Your task to perform on an android device: Find coffee shops on Maps Image 0: 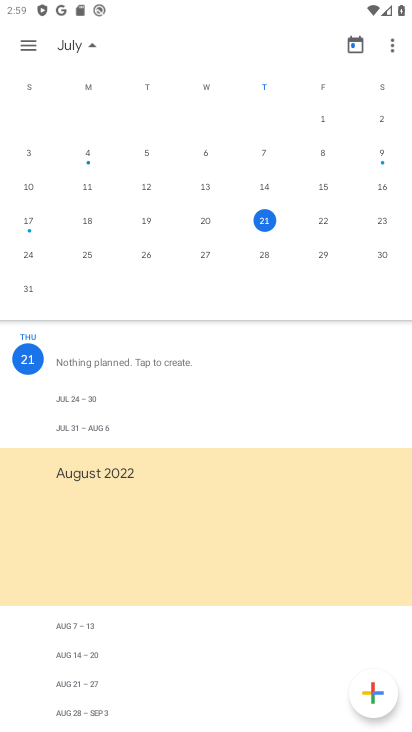
Step 0: press home button
Your task to perform on an android device: Find coffee shops on Maps Image 1: 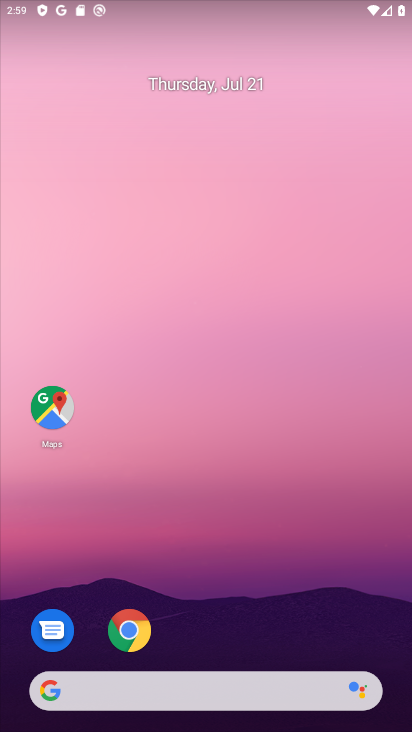
Step 1: drag from (294, 603) to (70, 28)
Your task to perform on an android device: Find coffee shops on Maps Image 2: 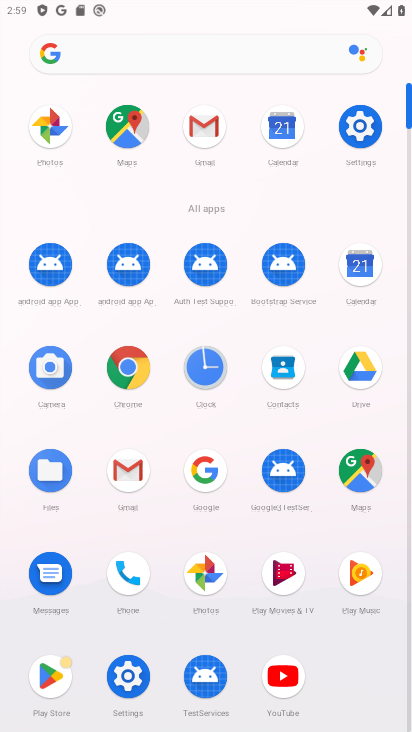
Step 2: click (134, 125)
Your task to perform on an android device: Find coffee shops on Maps Image 3: 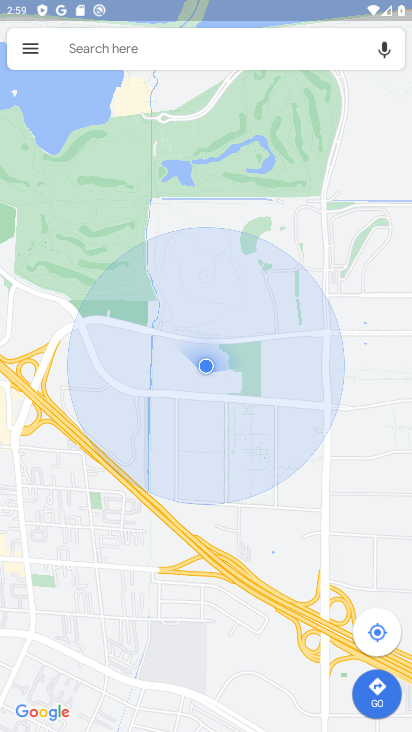
Step 3: click (174, 48)
Your task to perform on an android device: Find coffee shops on Maps Image 4: 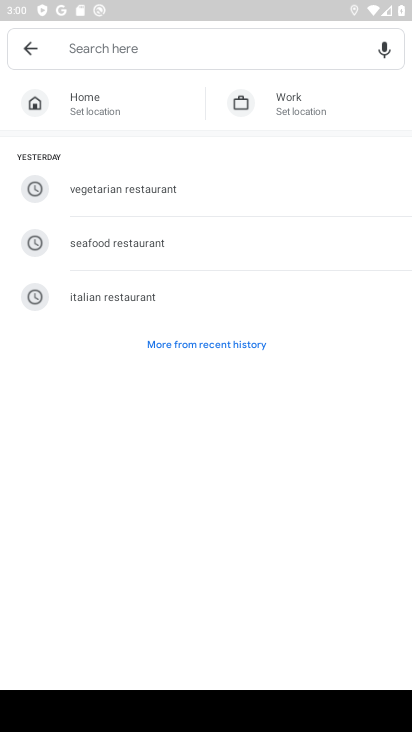
Step 4: type "coffee shops"
Your task to perform on an android device: Find coffee shops on Maps Image 5: 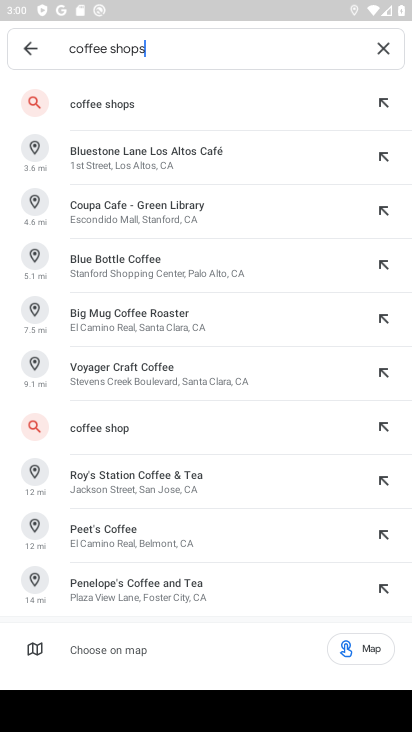
Step 5: click (152, 94)
Your task to perform on an android device: Find coffee shops on Maps Image 6: 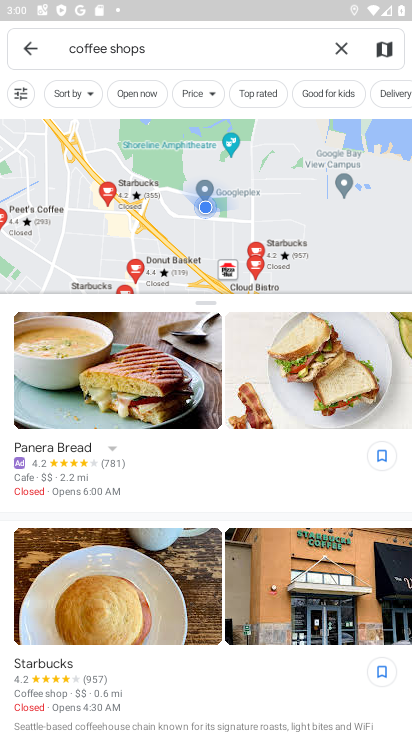
Step 6: task complete